Your task to perform on an android device: Open Reddit.com Image 0: 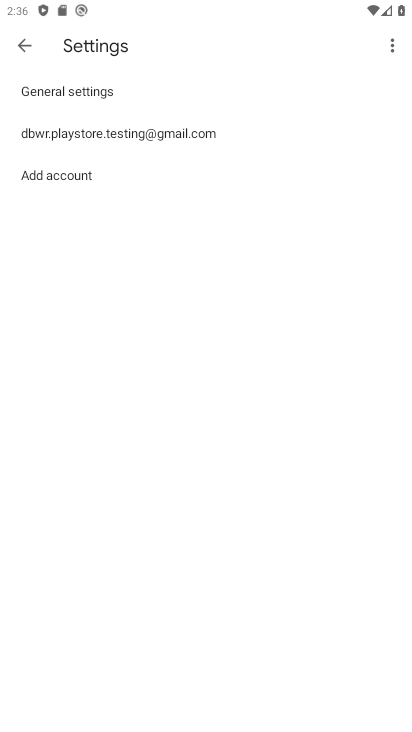
Step 0: press home button
Your task to perform on an android device: Open Reddit.com Image 1: 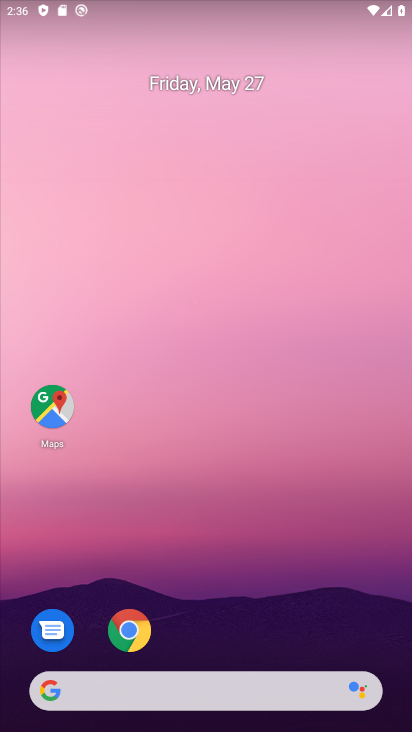
Step 1: drag from (191, 629) to (160, 25)
Your task to perform on an android device: Open Reddit.com Image 2: 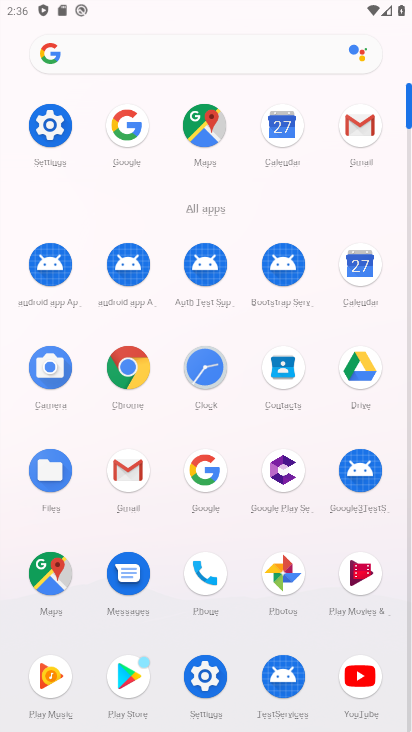
Step 2: click (137, 383)
Your task to perform on an android device: Open Reddit.com Image 3: 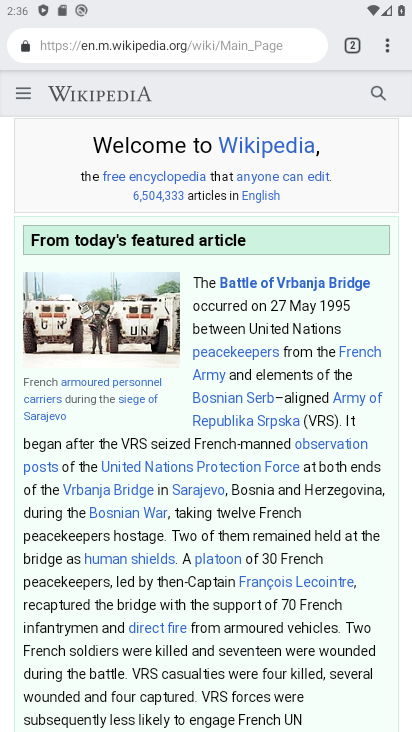
Step 3: click (346, 47)
Your task to perform on an android device: Open Reddit.com Image 4: 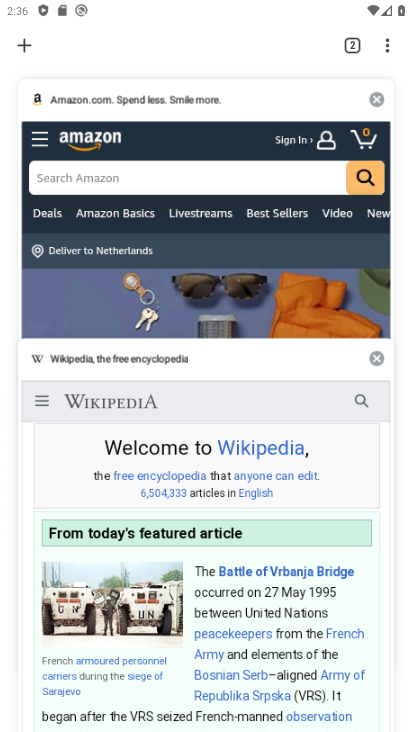
Step 4: click (18, 35)
Your task to perform on an android device: Open Reddit.com Image 5: 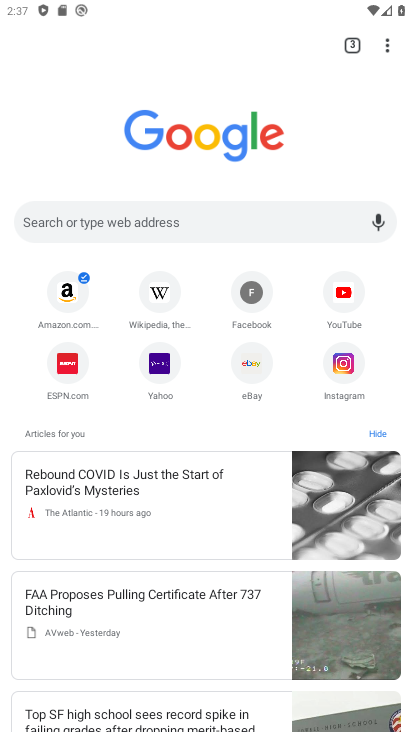
Step 5: click (149, 228)
Your task to perform on an android device: Open Reddit.com Image 6: 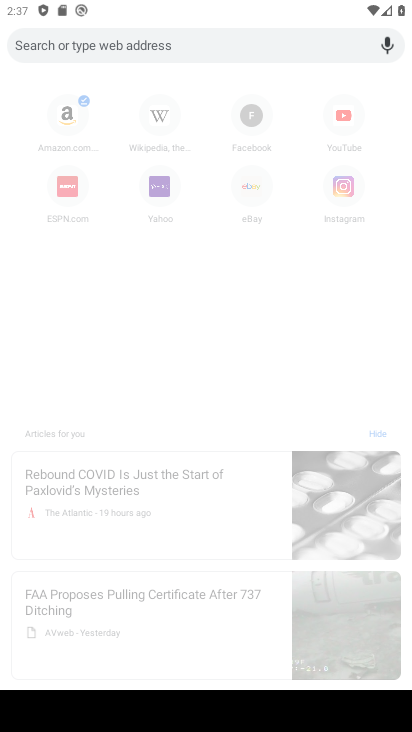
Step 6: type "reddit"
Your task to perform on an android device: Open Reddit.com Image 7: 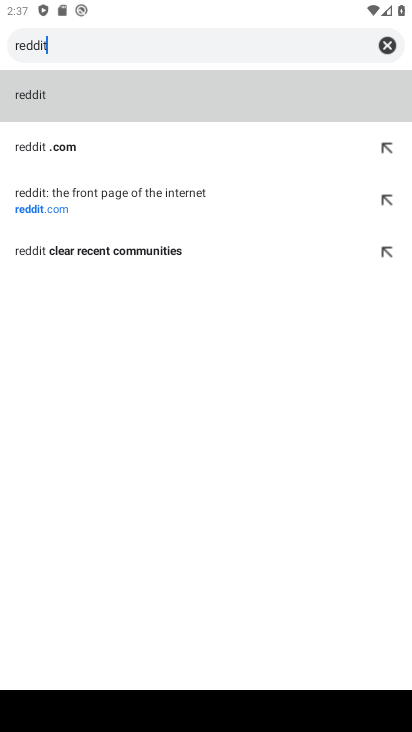
Step 7: click (169, 218)
Your task to perform on an android device: Open Reddit.com Image 8: 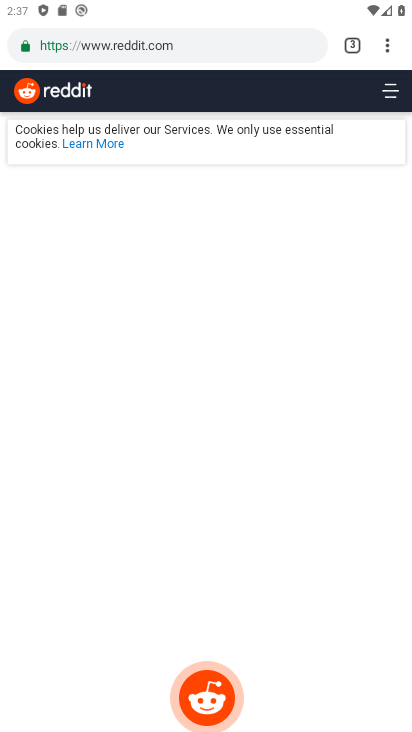
Step 8: task complete